Your task to perform on an android device: visit the assistant section in the google photos Image 0: 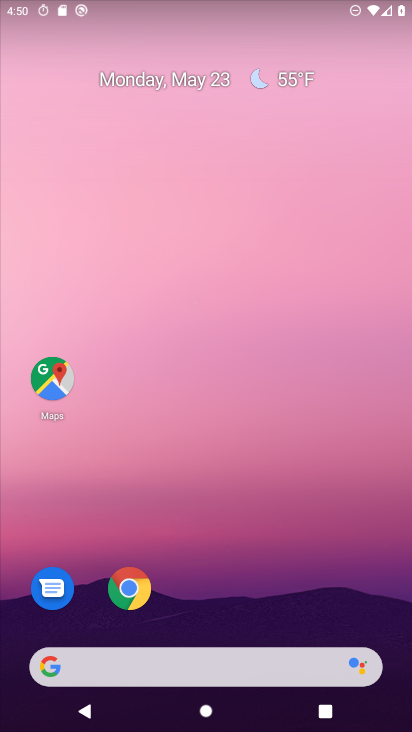
Step 0: drag from (199, 577) to (243, 92)
Your task to perform on an android device: visit the assistant section in the google photos Image 1: 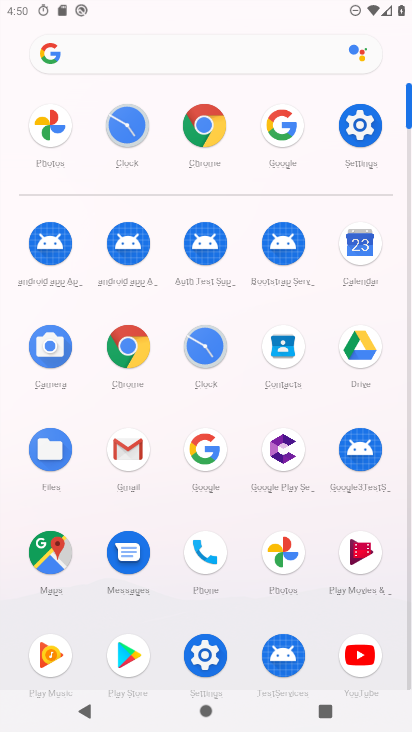
Step 1: click (289, 544)
Your task to perform on an android device: visit the assistant section in the google photos Image 2: 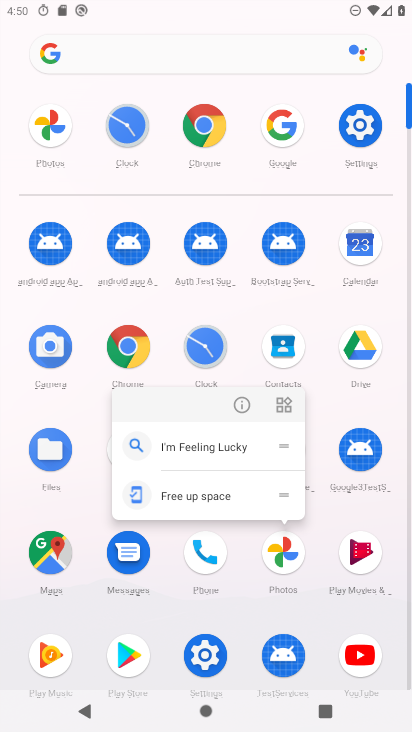
Step 2: click (286, 556)
Your task to perform on an android device: visit the assistant section in the google photos Image 3: 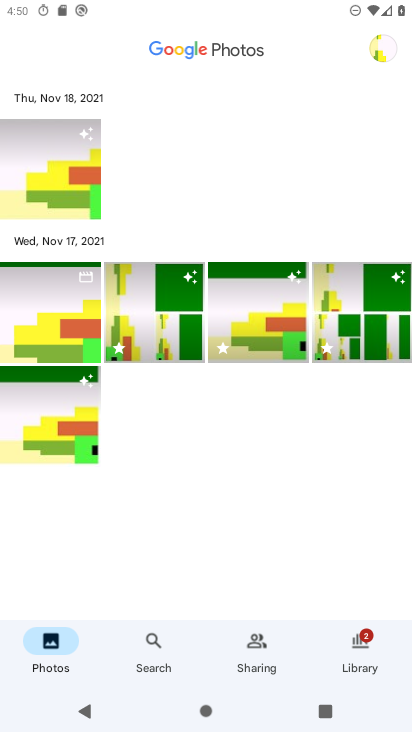
Step 3: click (353, 656)
Your task to perform on an android device: visit the assistant section in the google photos Image 4: 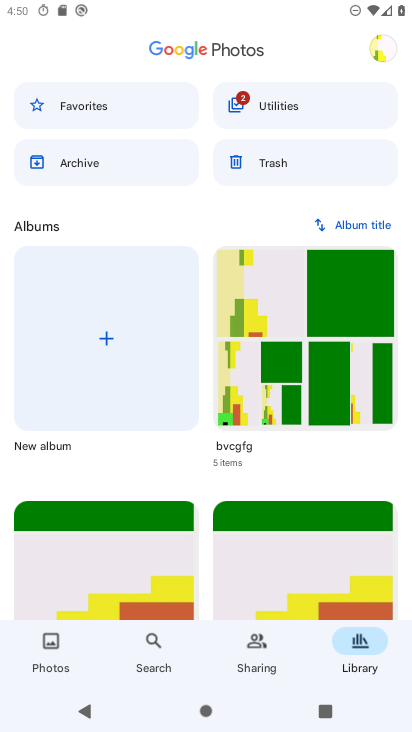
Step 4: click (246, 660)
Your task to perform on an android device: visit the assistant section in the google photos Image 5: 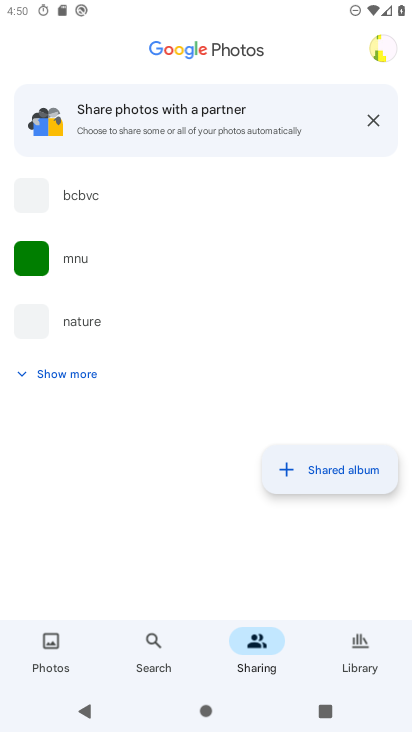
Step 5: click (163, 656)
Your task to perform on an android device: visit the assistant section in the google photos Image 6: 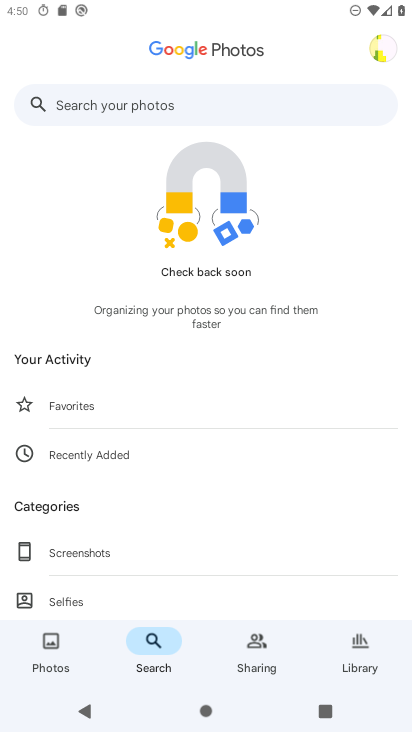
Step 6: task complete